Your task to perform on an android device: open a bookmark in the chrome app Image 0: 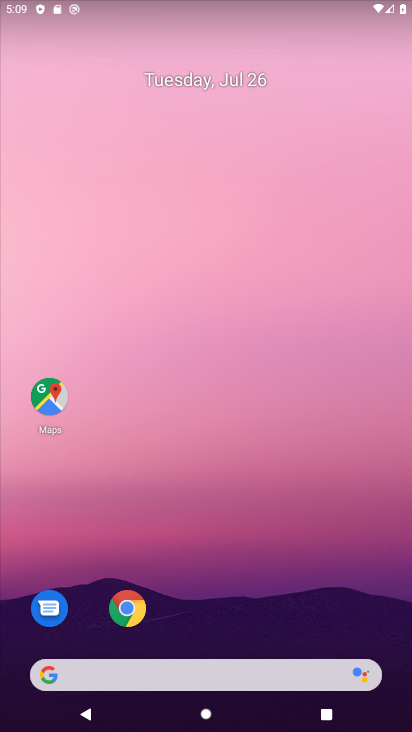
Step 0: press home button
Your task to perform on an android device: open a bookmark in the chrome app Image 1: 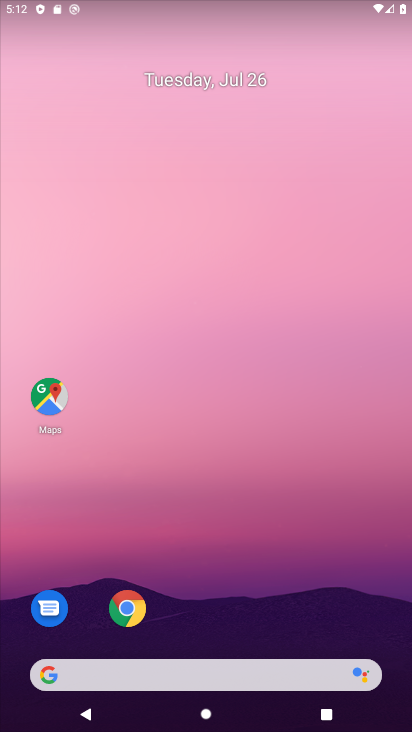
Step 1: drag from (234, 637) to (194, 138)
Your task to perform on an android device: open a bookmark in the chrome app Image 2: 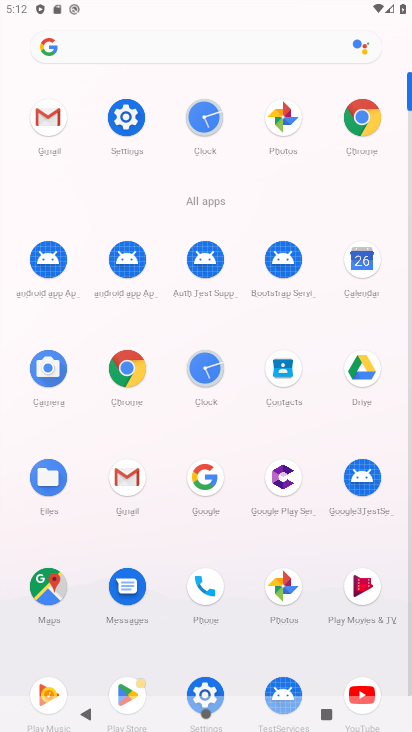
Step 2: click (362, 123)
Your task to perform on an android device: open a bookmark in the chrome app Image 3: 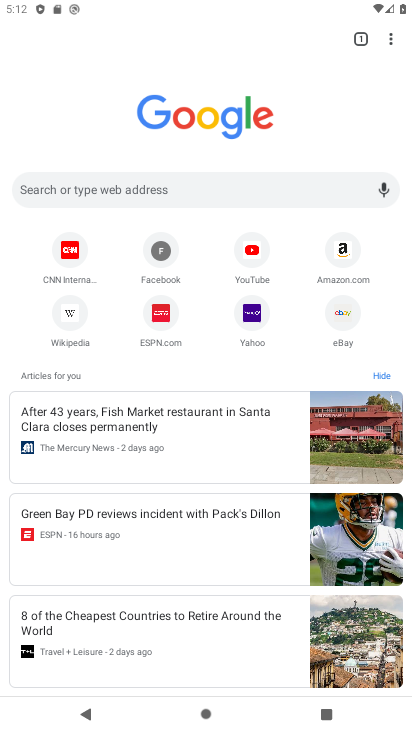
Step 3: drag from (392, 37) to (267, 147)
Your task to perform on an android device: open a bookmark in the chrome app Image 4: 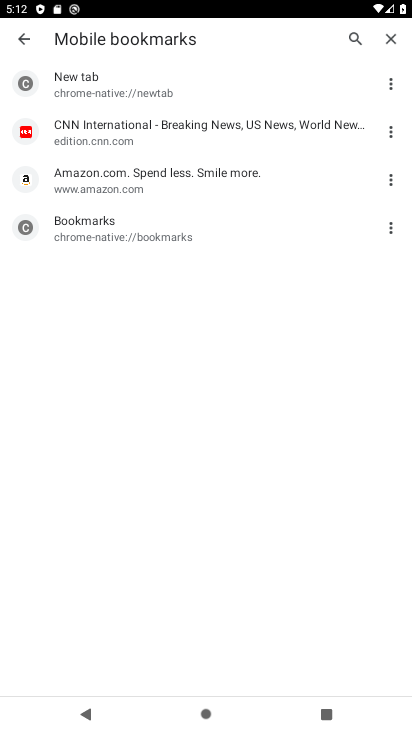
Step 4: click (153, 171)
Your task to perform on an android device: open a bookmark in the chrome app Image 5: 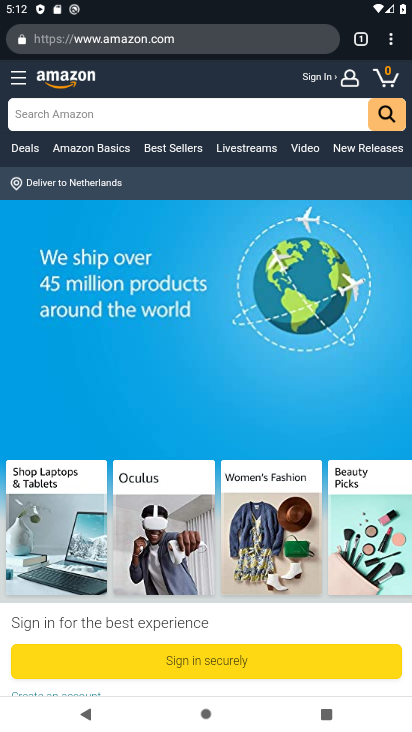
Step 5: task complete